Your task to perform on an android device: delete browsing data in the chrome app Image 0: 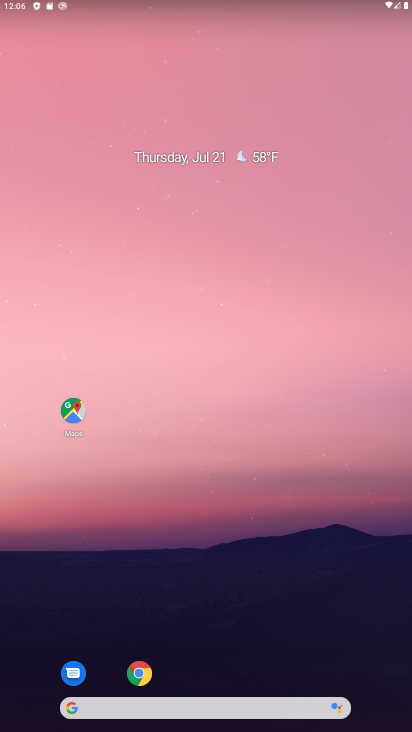
Step 0: drag from (213, 661) to (219, 479)
Your task to perform on an android device: delete browsing data in the chrome app Image 1: 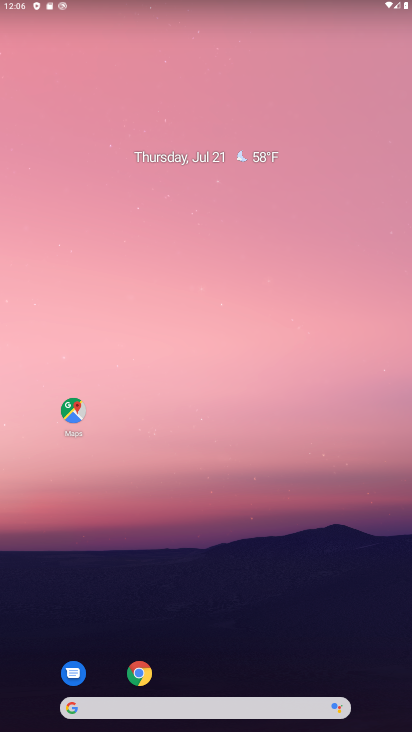
Step 1: drag from (246, 697) to (254, 330)
Your task to perform on an android device: delete browsing data in the chrome app Image 2: 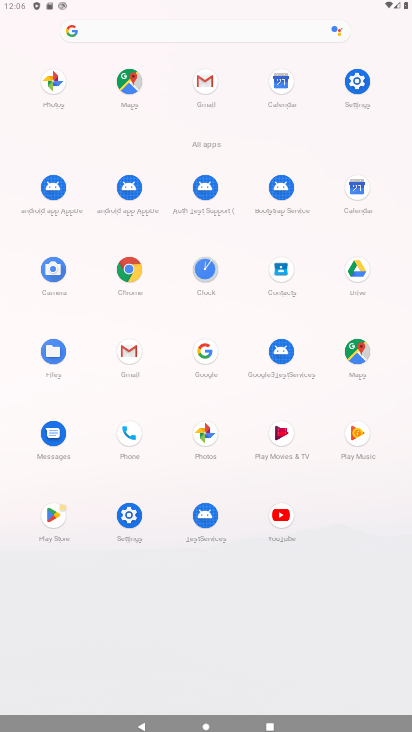
Step 2: click (129, 255)
Your task to perform on an android device: delete browsing data in the chrome app Image 3: 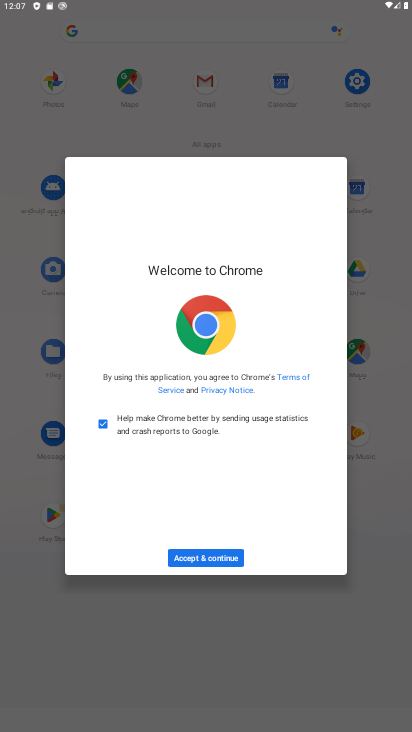
Step 3: click (199, 556)
Your task to perform on an android device: delete browsing data in the chrome app Image 4: 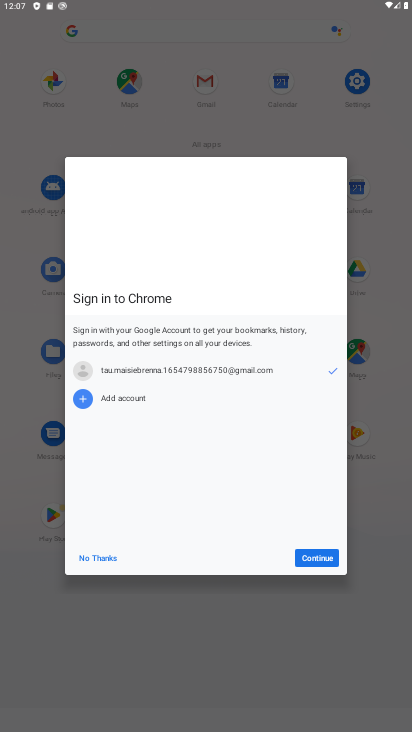
Step 4: click (317, 547)
Your task to perform on an android device: delete browsing data in the chrome app Image 5: 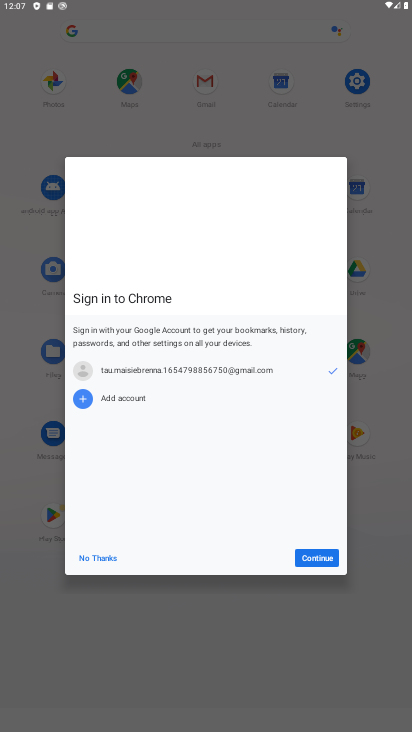
Step 5: click (315, 555)
Your task to perform on an android device: delete browsing data in the chrome app Image 6: 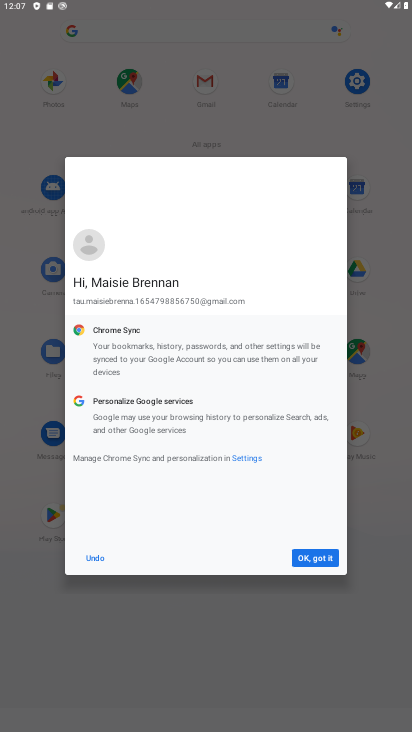
Step 6: click (317, 550)
Your task to perform on an android device: delete browsing data in the chrome app Image 7: 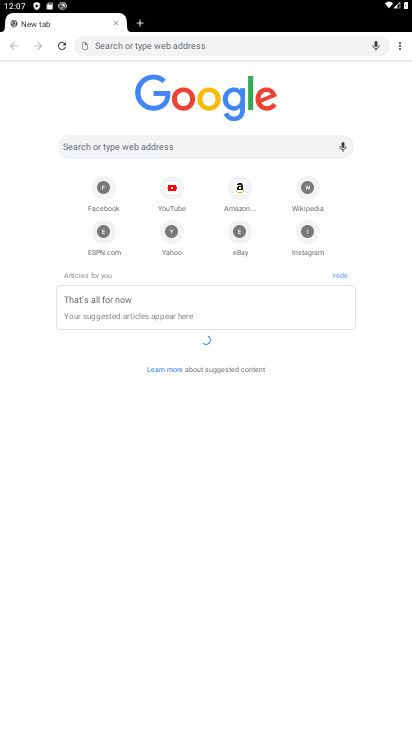
Step 7: click (401, 40)
Your task to perform on an android device: delete browsing data in the chrome app Image 8: 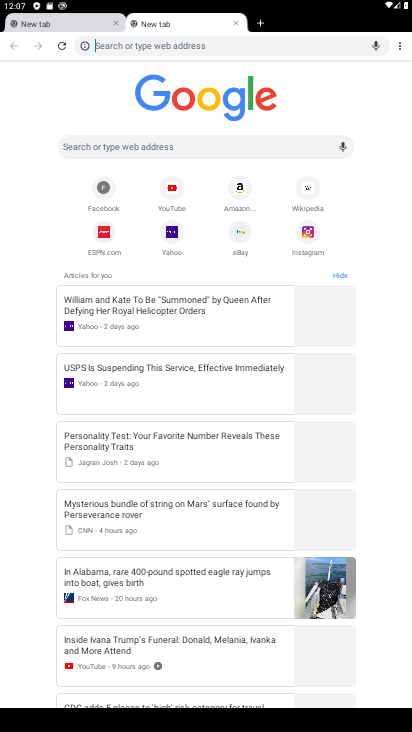
Step 8: click (401, 45)
Your task to perform on an android device: delete browsing data in the chrome app Image 9: 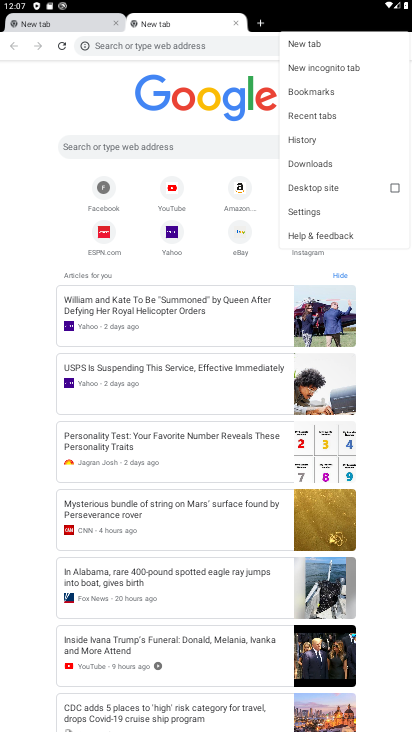
Step 9: click (315, 210)
Your task to perform on an android device: delete browsing data in the chrome app Image 10: 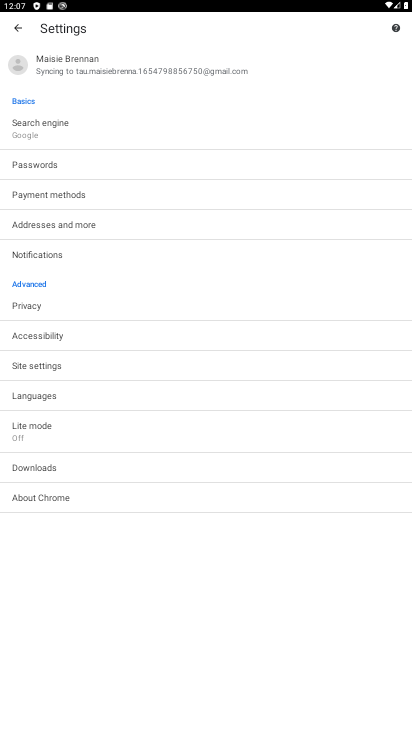
Step 10: click (59, 303)
Your task to perform on an android device: delete browsing data in the chrome app Image 11: 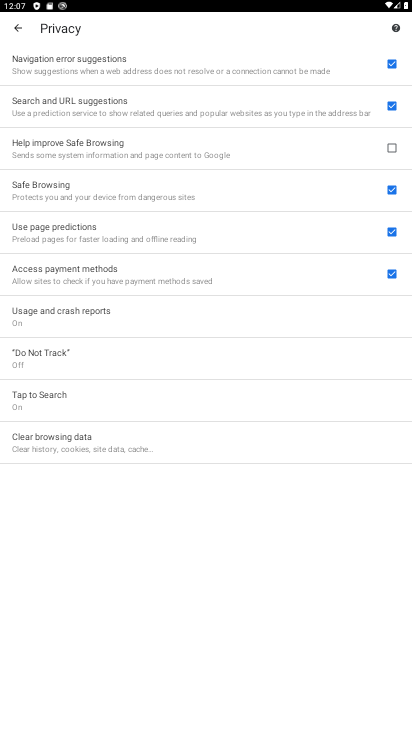
Step 11: click (176, 435)
Your task to perform on an android device: delete browsing data in the chrome app Image 12: 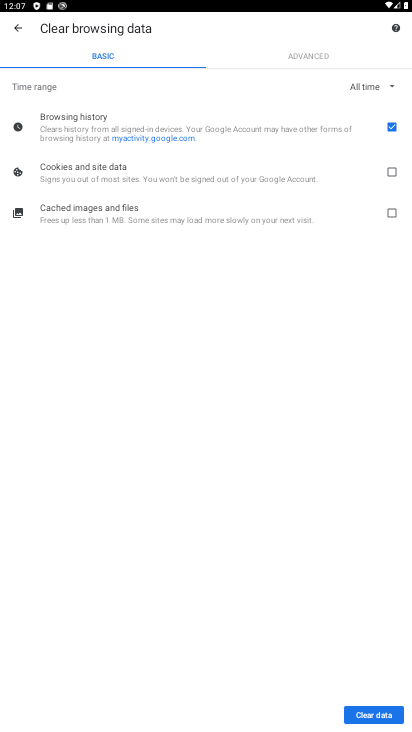
Step 12: click (376, 711)
Your task to perform on an android device: delete browsing data in the chrome app Image 13: 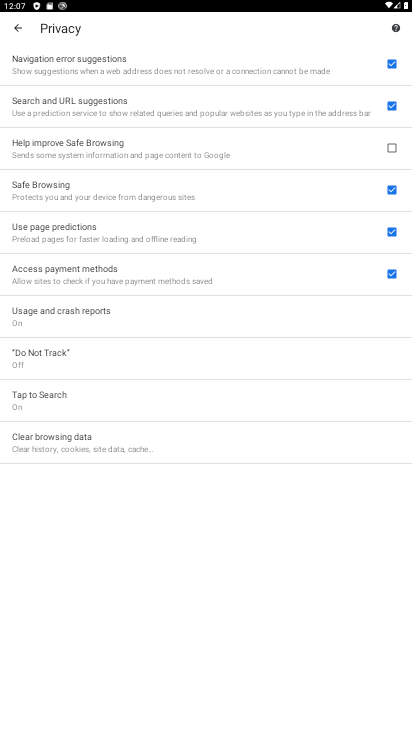
Step 13: click (225, 438)
Your task to perform on an android device: delete browsing data in the chrome app Image 14: 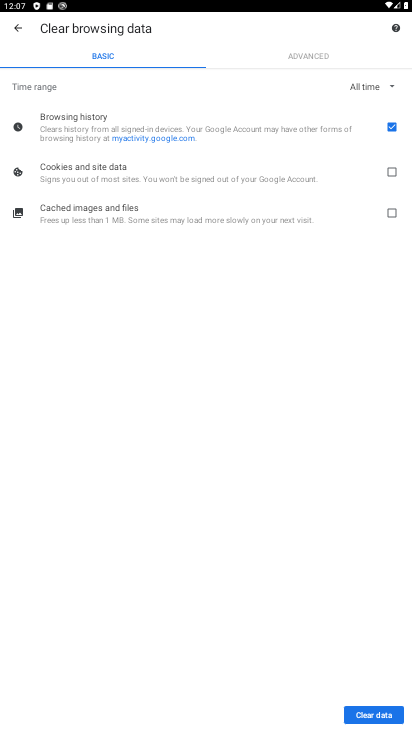
Step 14: click (387, 170)
Your task to perform on an android device: delete browsing data in the chrome app Image 15: 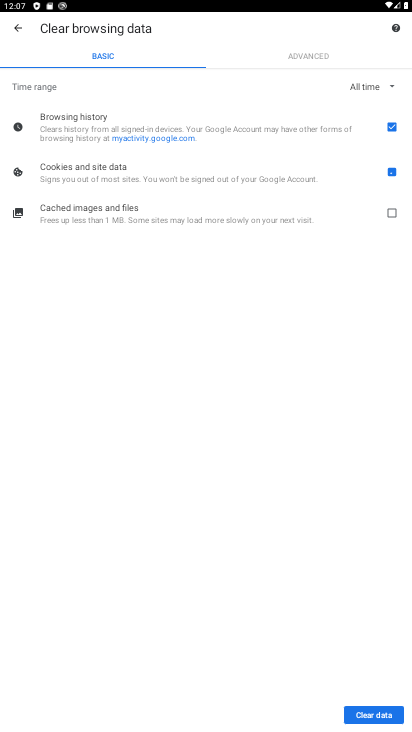
Step 15: click (398, 211)
Your task to perform on an android device: delete browsing data in the chrome app Image 16: 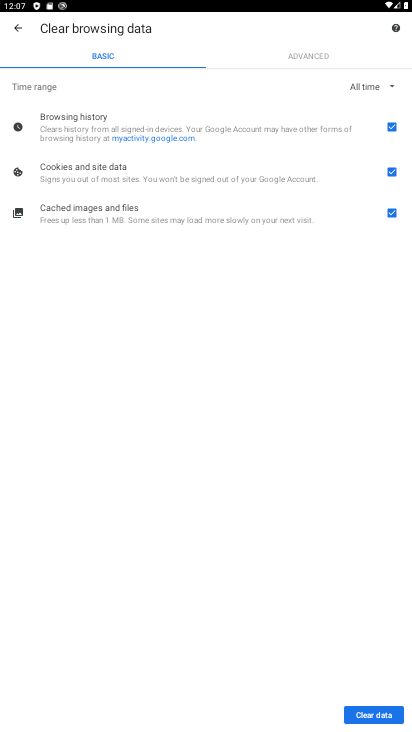
Step 16: click (366, 719)
Your task to perform on an android device: delete browsing data in the chrome app Image 17: 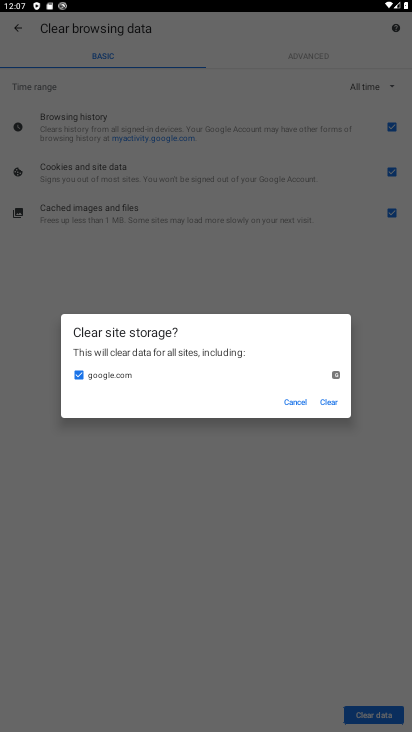
Step 17: click (323, 405)
Your task to perform on an android device: delete browsing data in the chrome app Image 18: 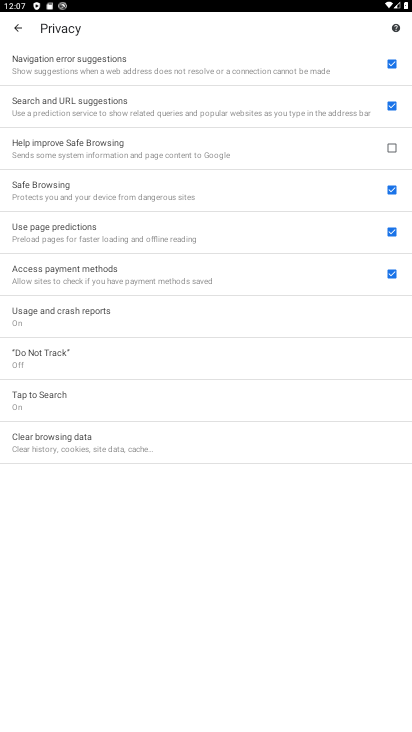
Step 18: task complete